Your task to perform on an android device: add a label to a message in the gmail app Image 0: 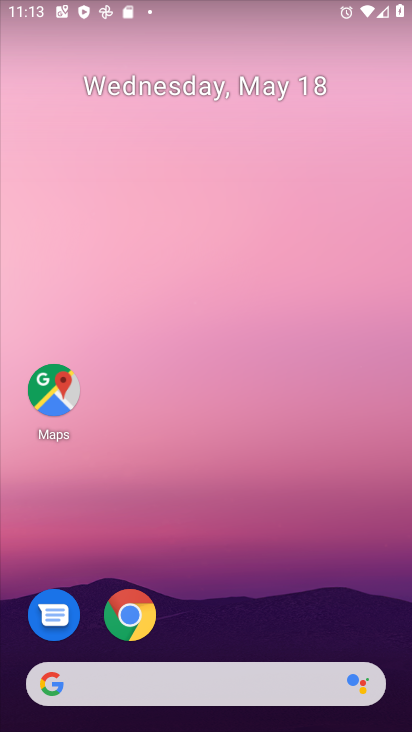
Step 0: drag from (209, 656) to (240, 294)
Your task to perform on an android device: add a label to a message in the gmail app Image 1: 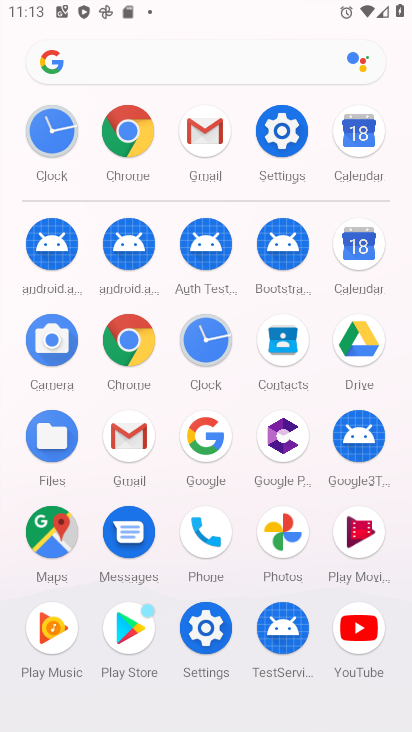
Step 1: click (205, 142)
Your task to perform on an android device: add a label to a message in the gmail app Image 2: 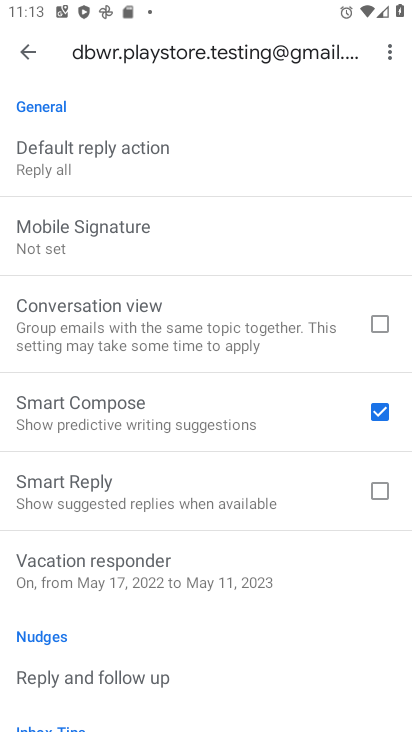
Step 2: click (32, 51)
Your task to perform on an android device: add a label to a message in the gmail app Image 3: 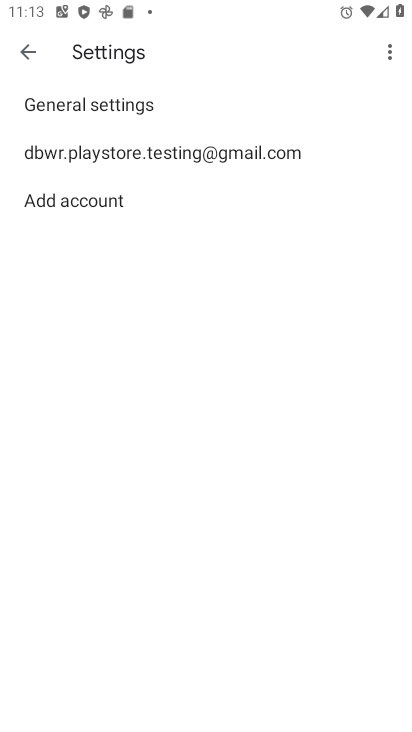
Step 3: click (32, 51)
Your task to perform on an android device: add a label to a message in the gmail app Image 4: 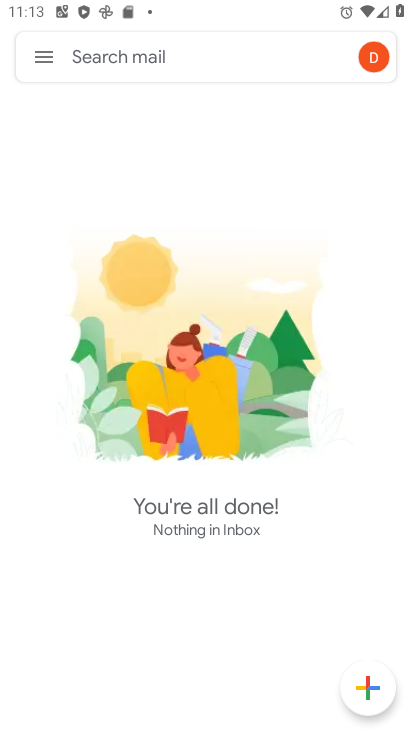
Step 4: task complete